Your task to perform on an android device: Open Google Chrome Image 0: 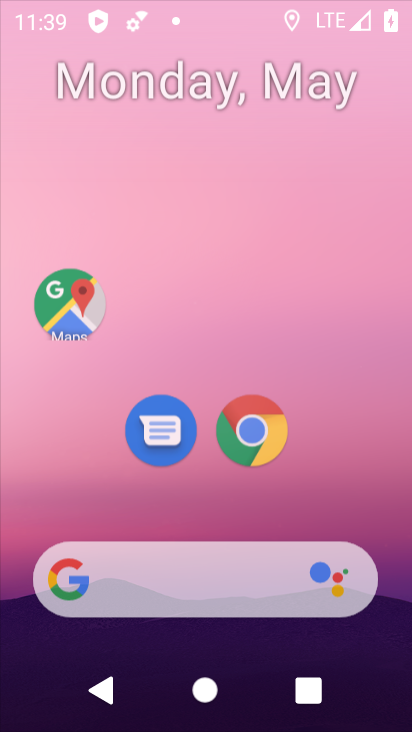
Step 0: press home button
Your task to perform on an android device: Open Google Chrome Image 1: 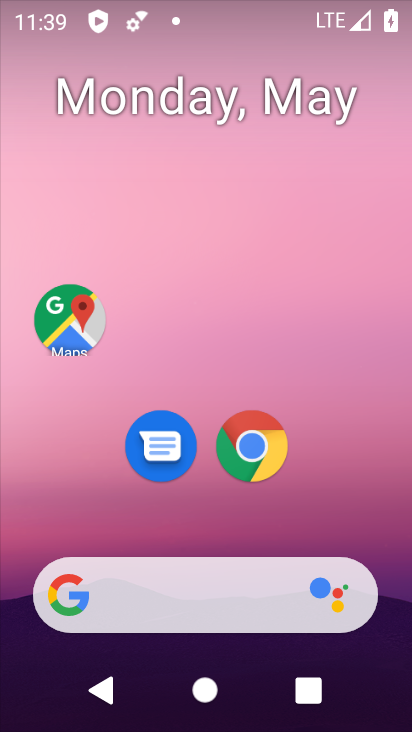
Step 1: click (258, 450)
Your task to perform on an android device: Open Google Chrome Image 2: 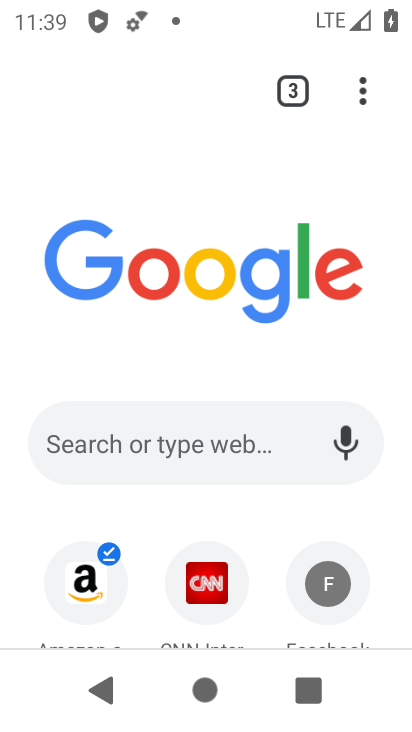
Step 2: task complete